Your task to perform on an android device: toggle translation in the chrome app Image 0: 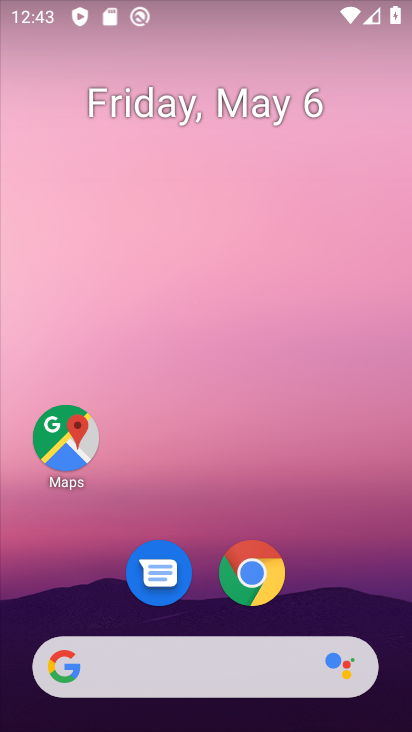
Step 0: click (254, 585)
Your task to perform on an android device: toggle translation in the chrome app Image 1: 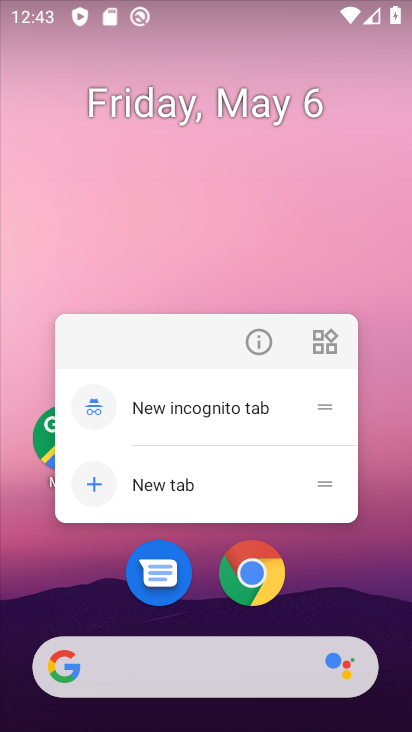
Step 1: click (245, 580)
Your task to perform on an android device: toggle translation in the chrome app Image 2: 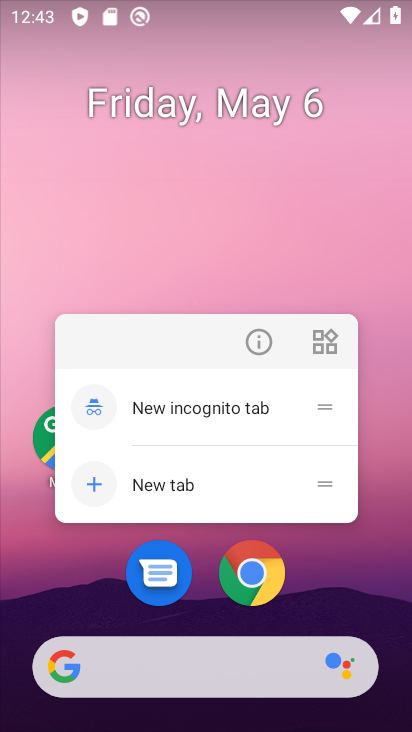
Step 2: click (252, 574)
Your task to perform on an android device: toggle translation in the chrome app Image 3: 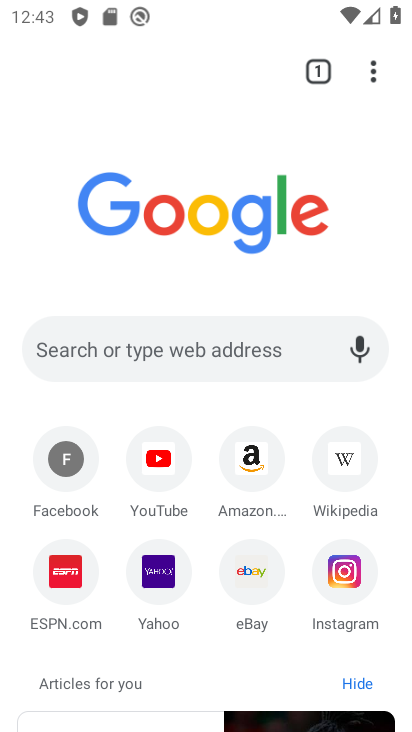
Step 3: drag from (374, 79) to (110, 600)
Your task to perform on an android device: toggle translation in the chrome app Image 4: 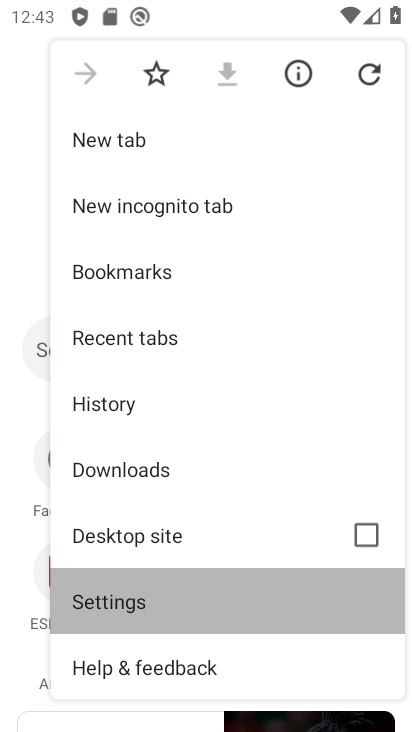
Step 4: click (110, 600)
Your task to perform on an android device: toggle translation in the chrome app Image 5: 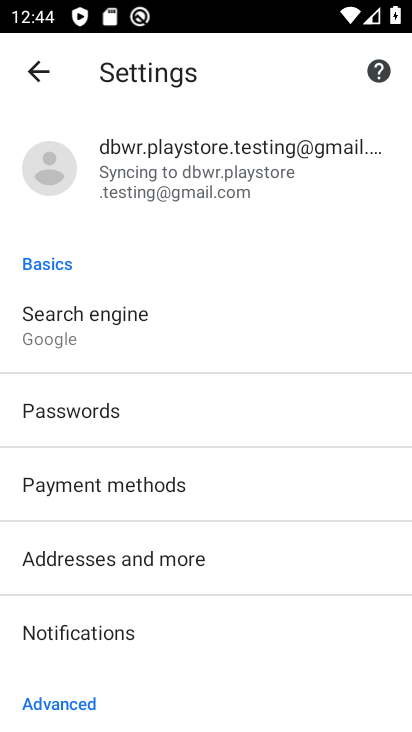
Step 5: drag from (103, 608) to (350, 170)
Your task to perform on an android device: toggle translation in the chrome app Image 6: 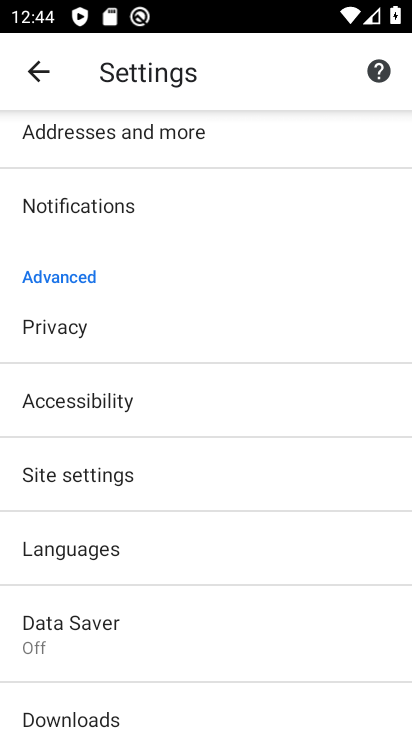
Step 6: click (103, 551)
Your task to perform on an android device: toggle translation in the chrome app Image 7: 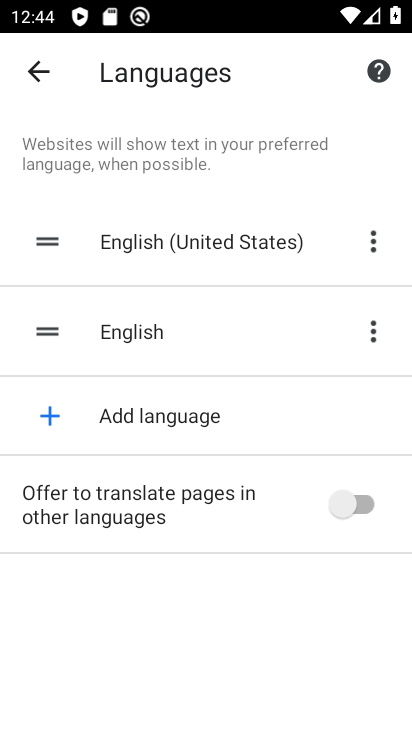
Step 7: click (363, 503)
Your task to perform on an android device: toggle translation in the chrome app Image 8: 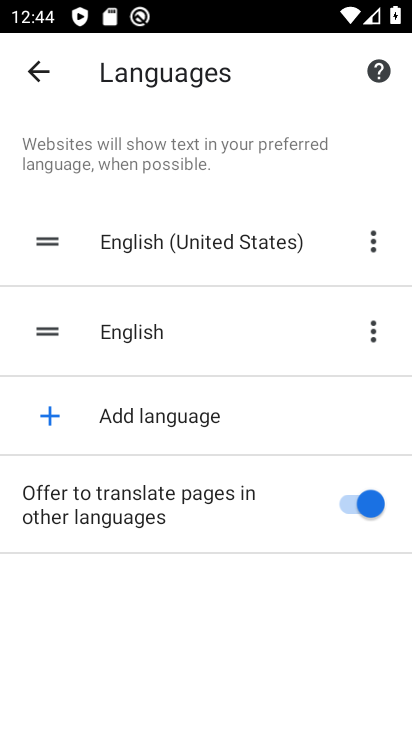
Step 8: task complete